Your task to perform on an android device: What's the weather? Image 0: 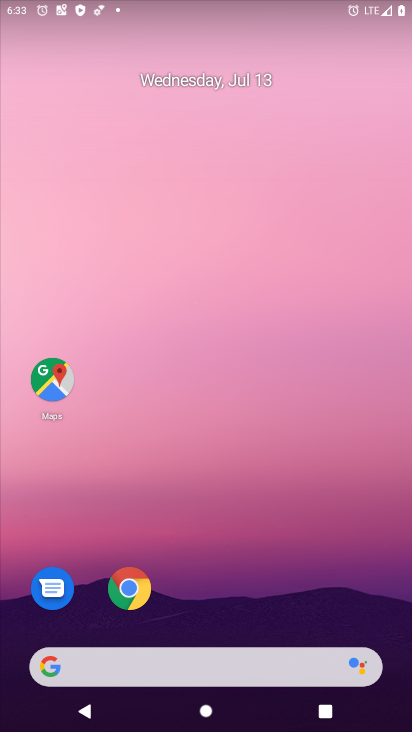
Step 0: drag from (210, 582) to (208, 149)
Your task to perform on an android device: What's the weather? Image 1: 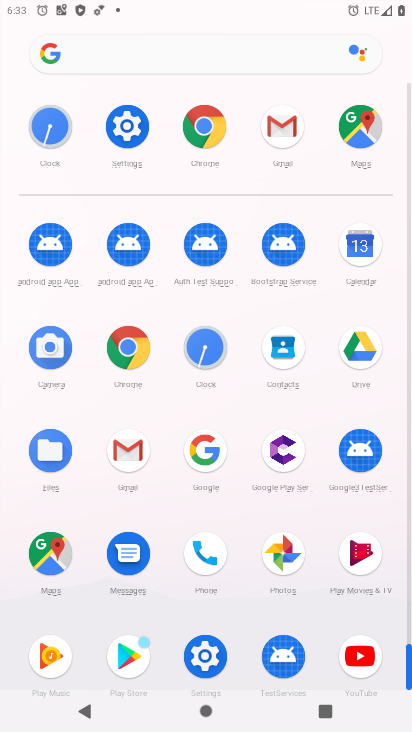
Step 1: click (204, 444)
Your task to perform on an android device: What's the weather? Image 2: 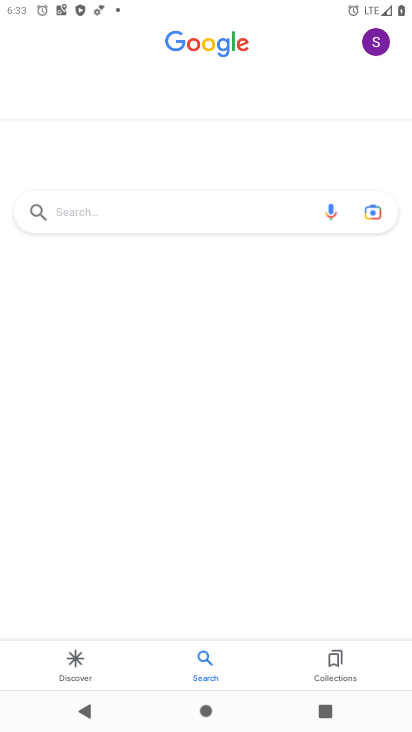
Step 2: click (98, 224)
Your task to perform on an android device: What's the weather? Image 3: 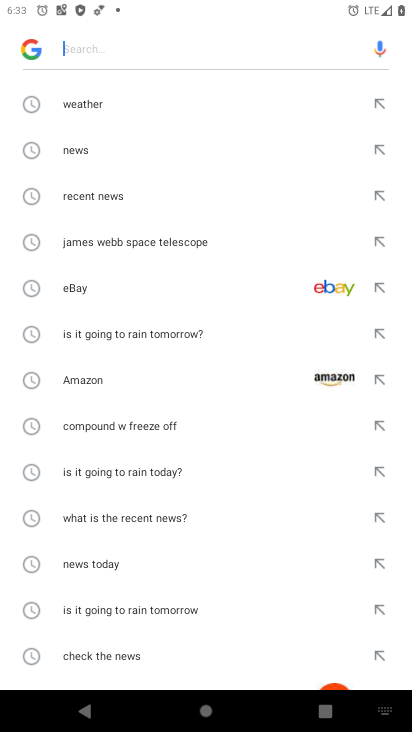
Step 3: click (85, 108)
Your task to perform on an android device: What's the weather? Image 4: 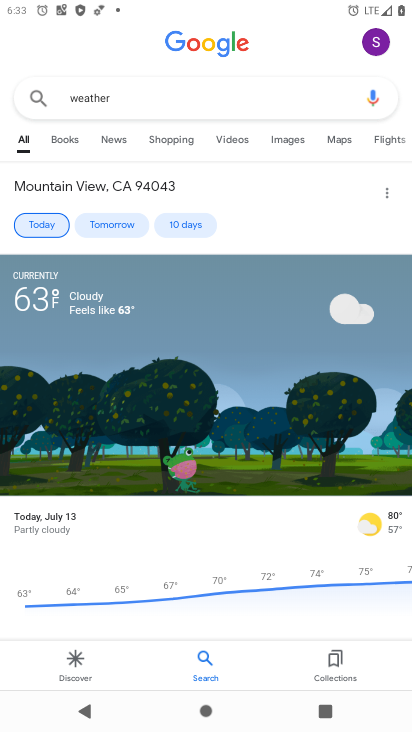
Step 4: task complete